Your task to perform on an android device: Search for pizza restaurants on Maps Image 0: 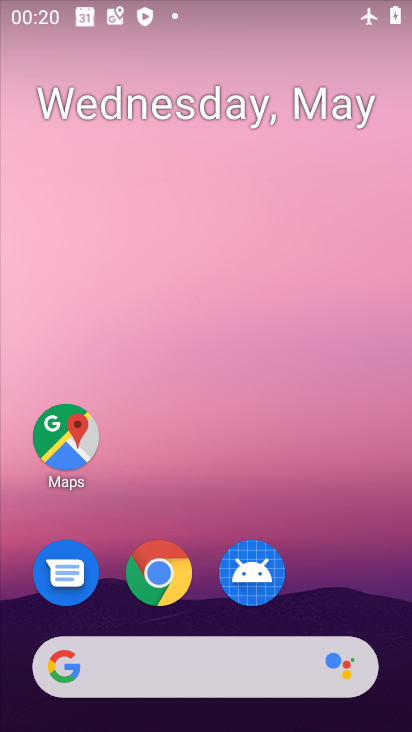
Step 0: click (68, 448)
Your task to perform on an android device: Search for pizza restaurants on Maps Image 1: 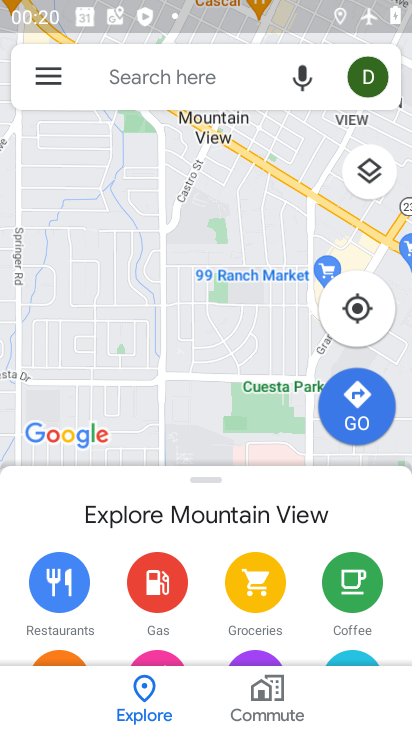
Step 1: click (182, 63)
Your task to perform on an android device: Search for pizza restaurants on Maps Image 2: 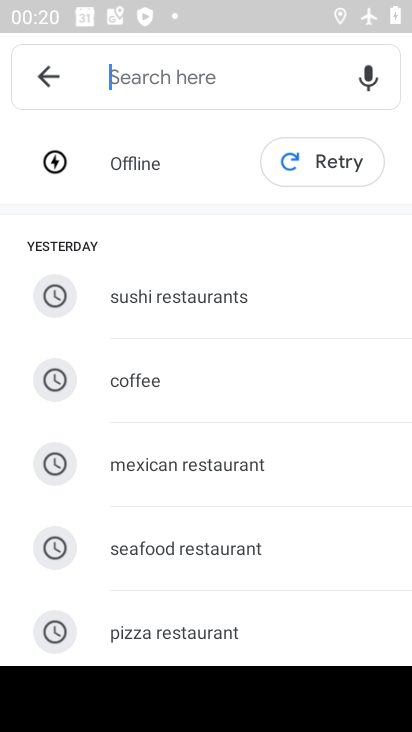
Step 2: click (186, 633)
Your task to perform on an android device: Search for pizza restaurants on Maps Image 3: 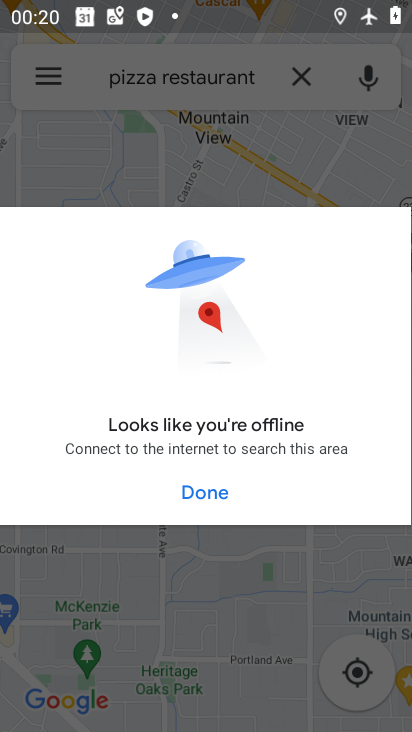
Step 3: click (187, 480)
Your task to perform on an android device: Search for pizza restaurants on Maps Image 4: 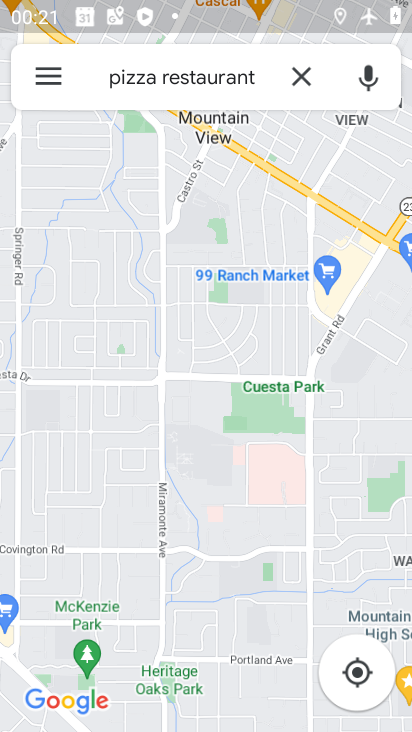
Step 4: task complete